Your task to perform on an android device: turn on bluetooth scan Image 0: 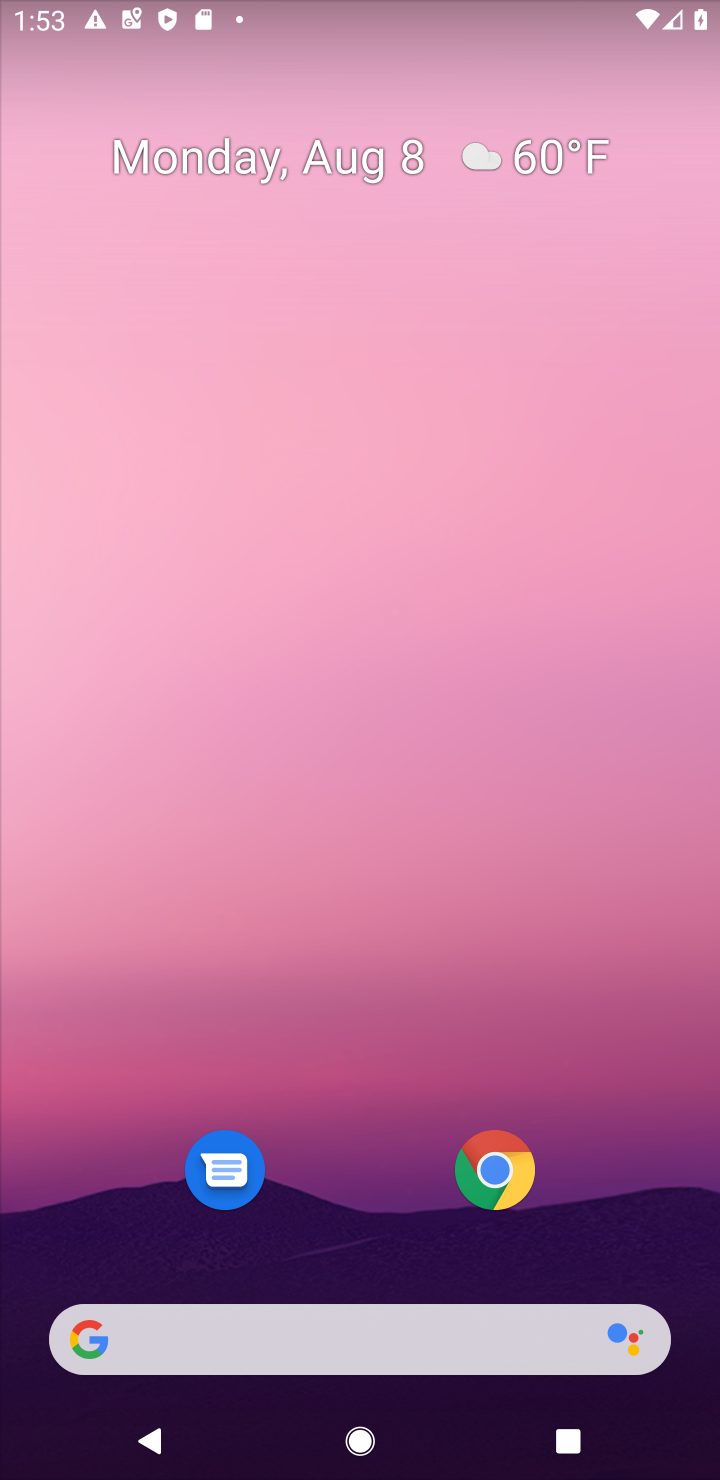
Step 0: drag from (344, 1009) to (356, 441)
Your task to perform on an android device: turn on bluetooth scan Image 1: 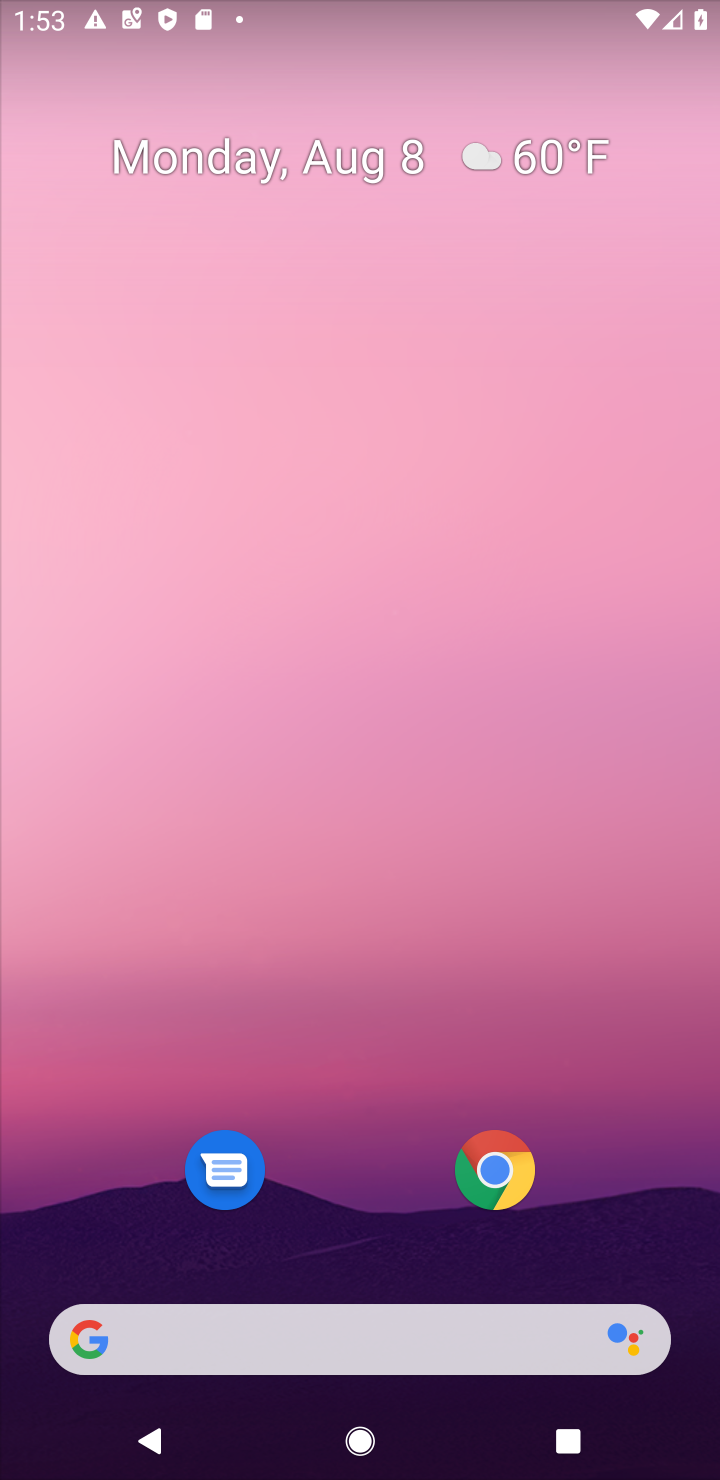
Step 1: drag from (374, 781) to (371, 169)
Your task to perform on an android device: turn on bluetooth scan Image 2: 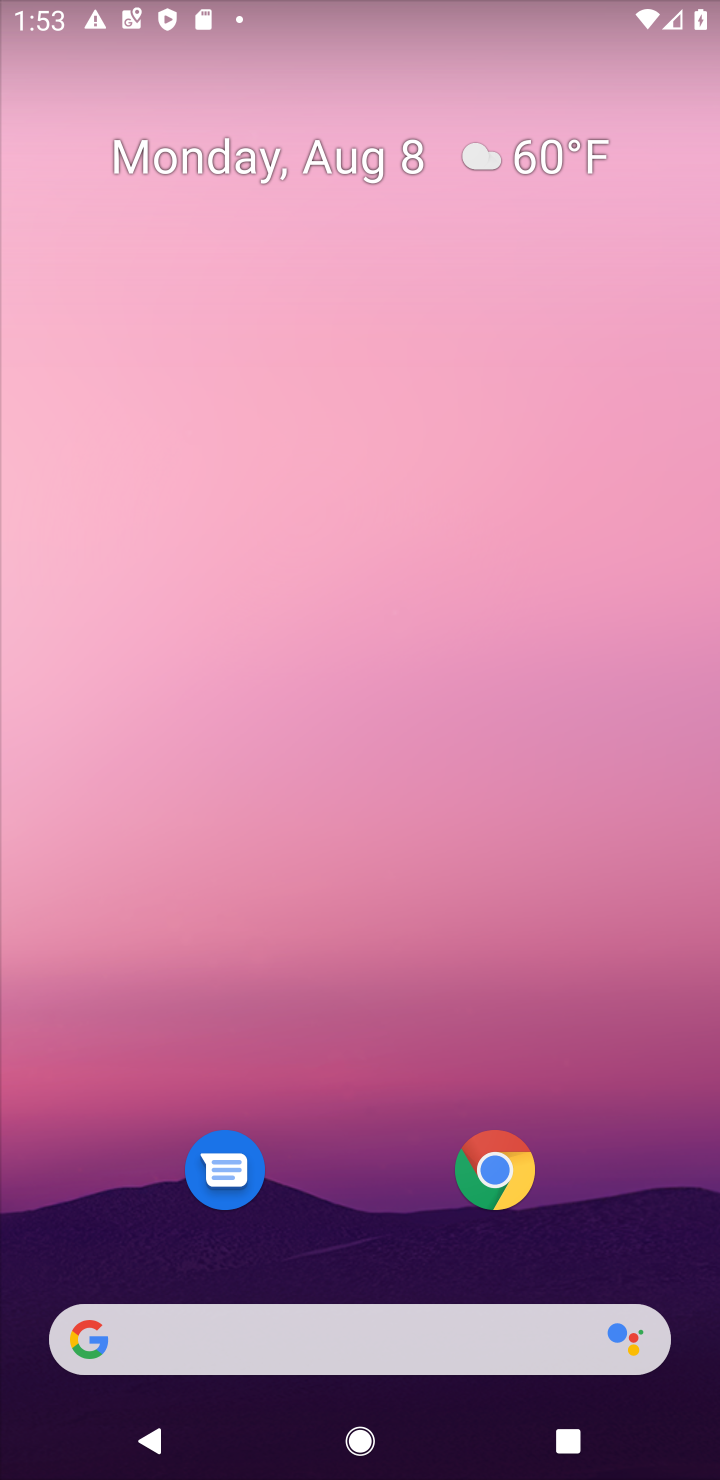
Step 2: drag from (344, 906) to (352, 191)
Your task to perform on an android device: turn on bluetooth scan Image 3: 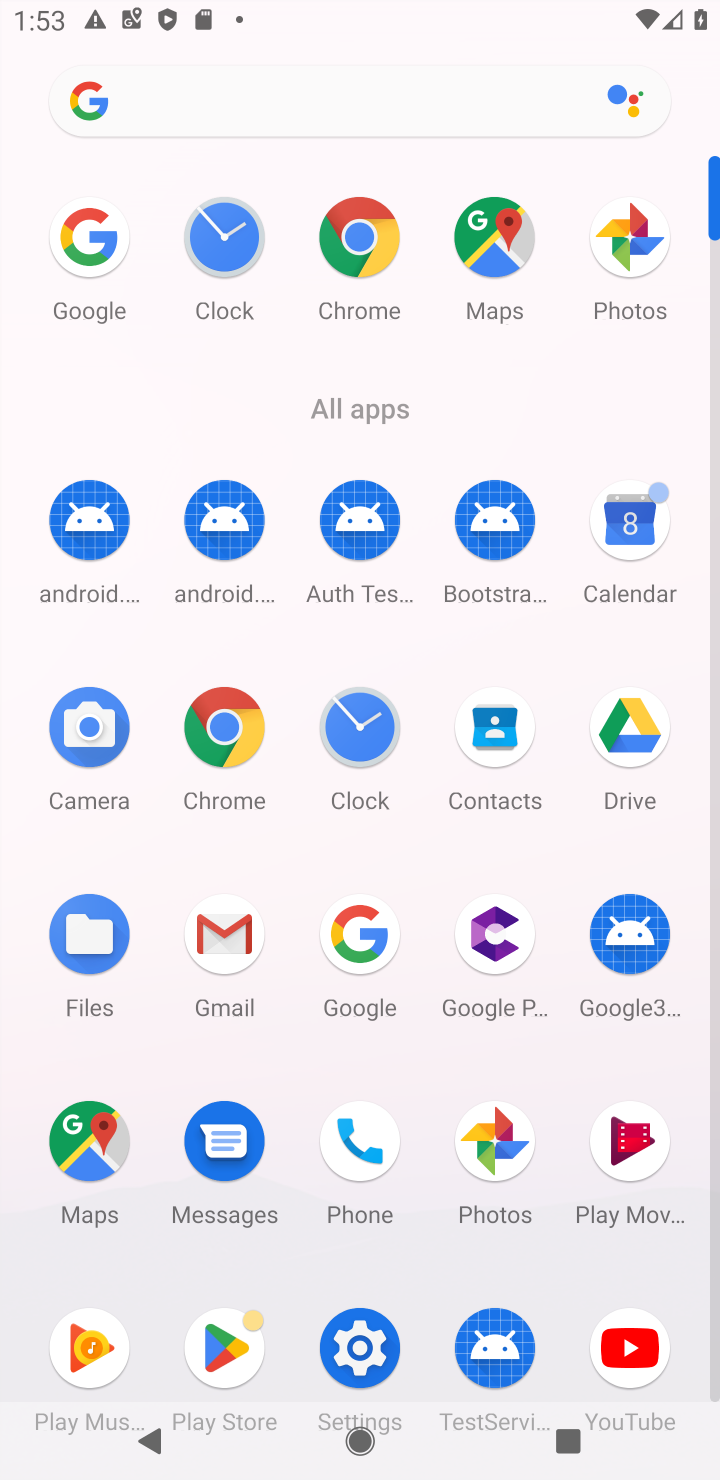
Step 3: click (386, 1319)
Your task to perform on an android device: turn on bluetooth scan Image 4: 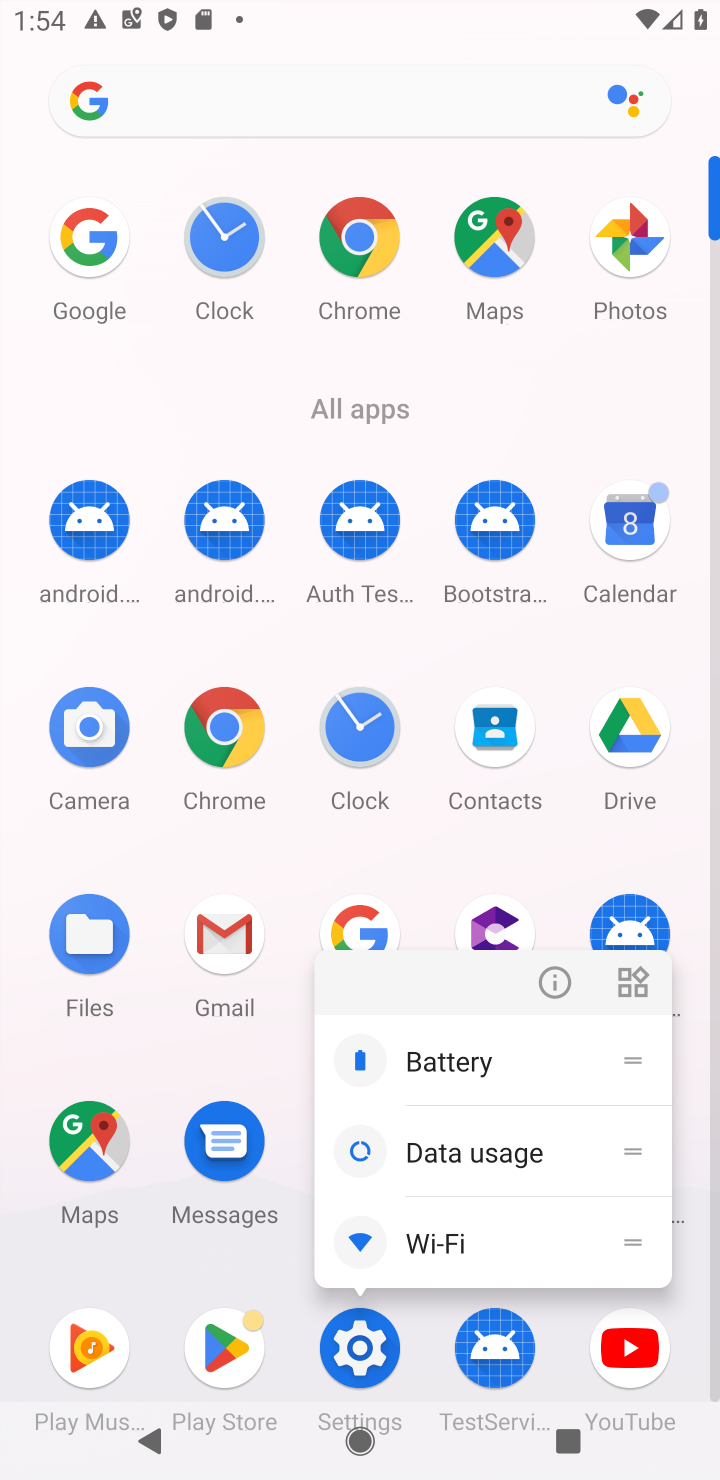
Step 4: click (358, 1359)
Your task to perform on an android device: turn on bluetooth scan Image 5: 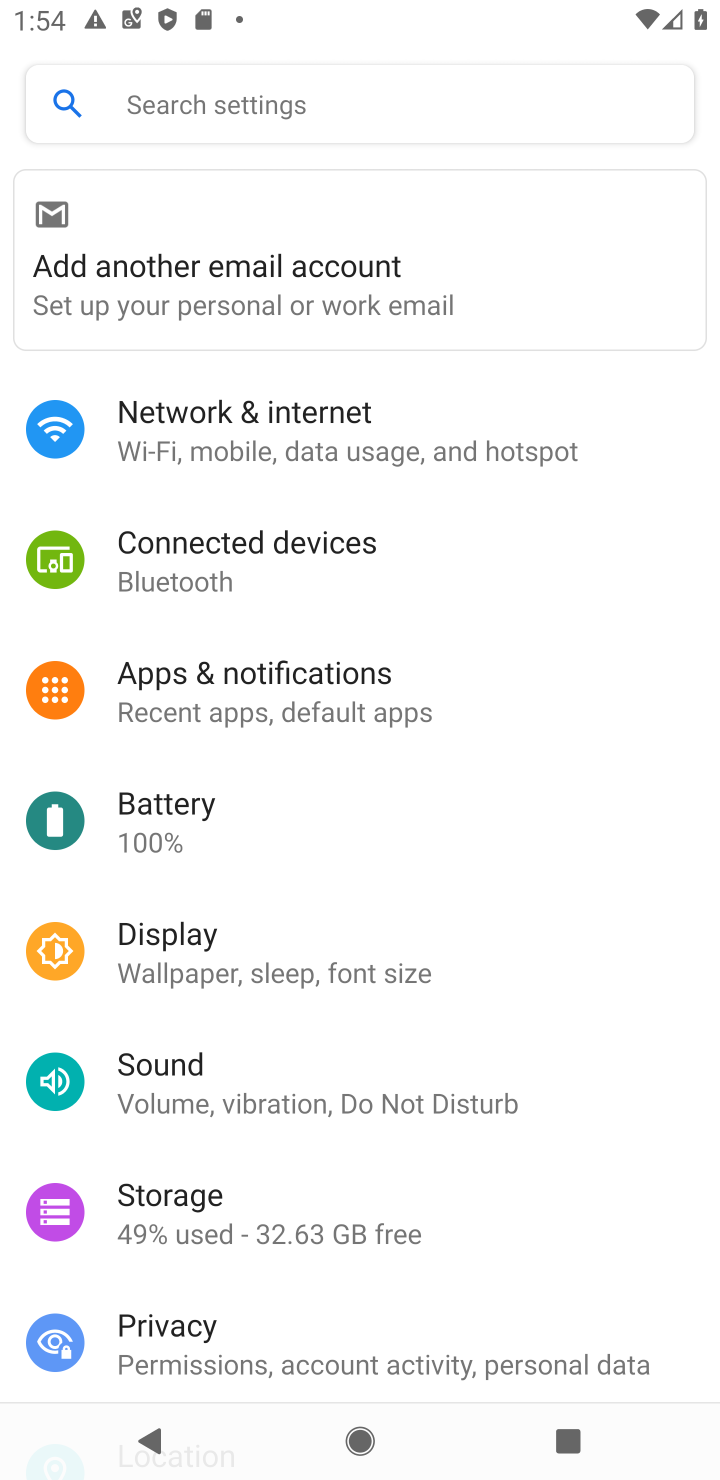
Step 5: click (311, 444)
Your task to perform on an android device: turn on bluetooth scan Image 6: 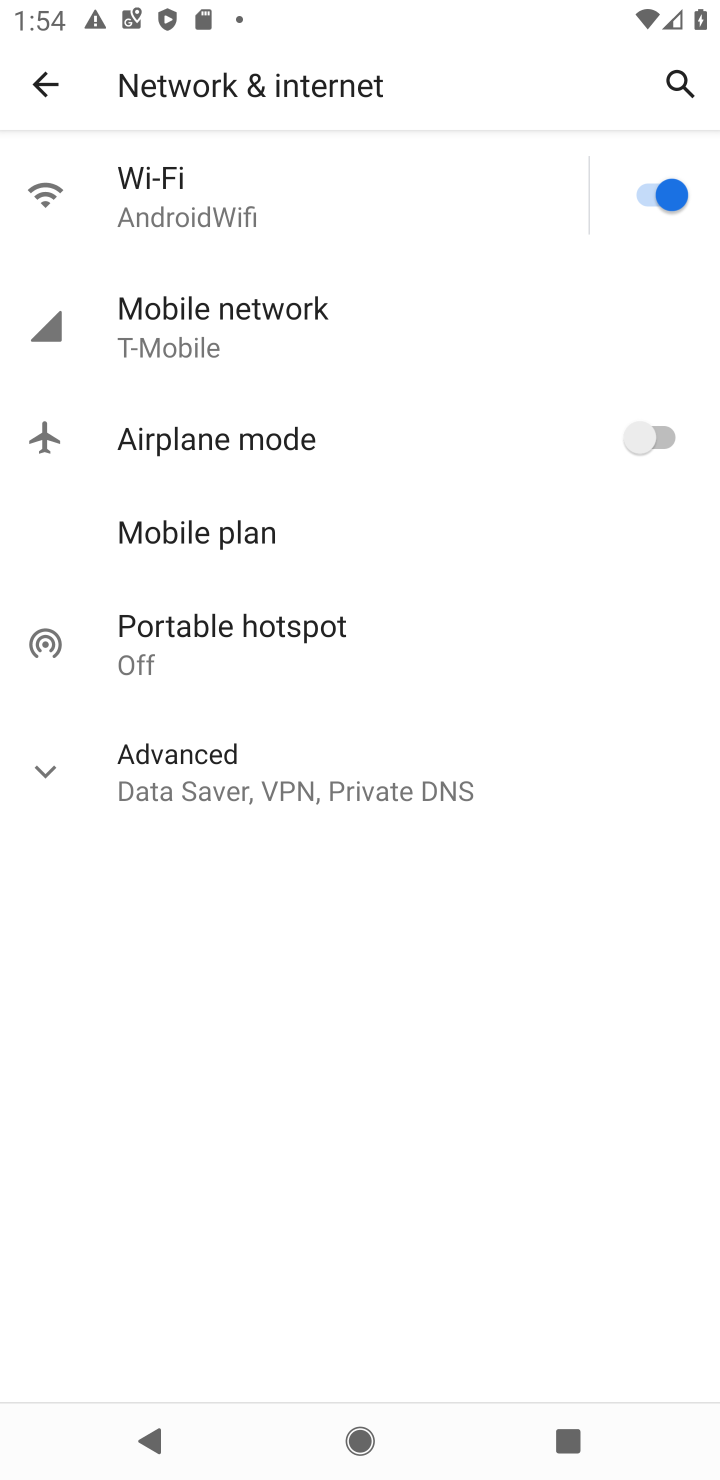
Step 6: click (51, 103)
Your task to perform on an android device: turn on bluetooth scan Image 7: 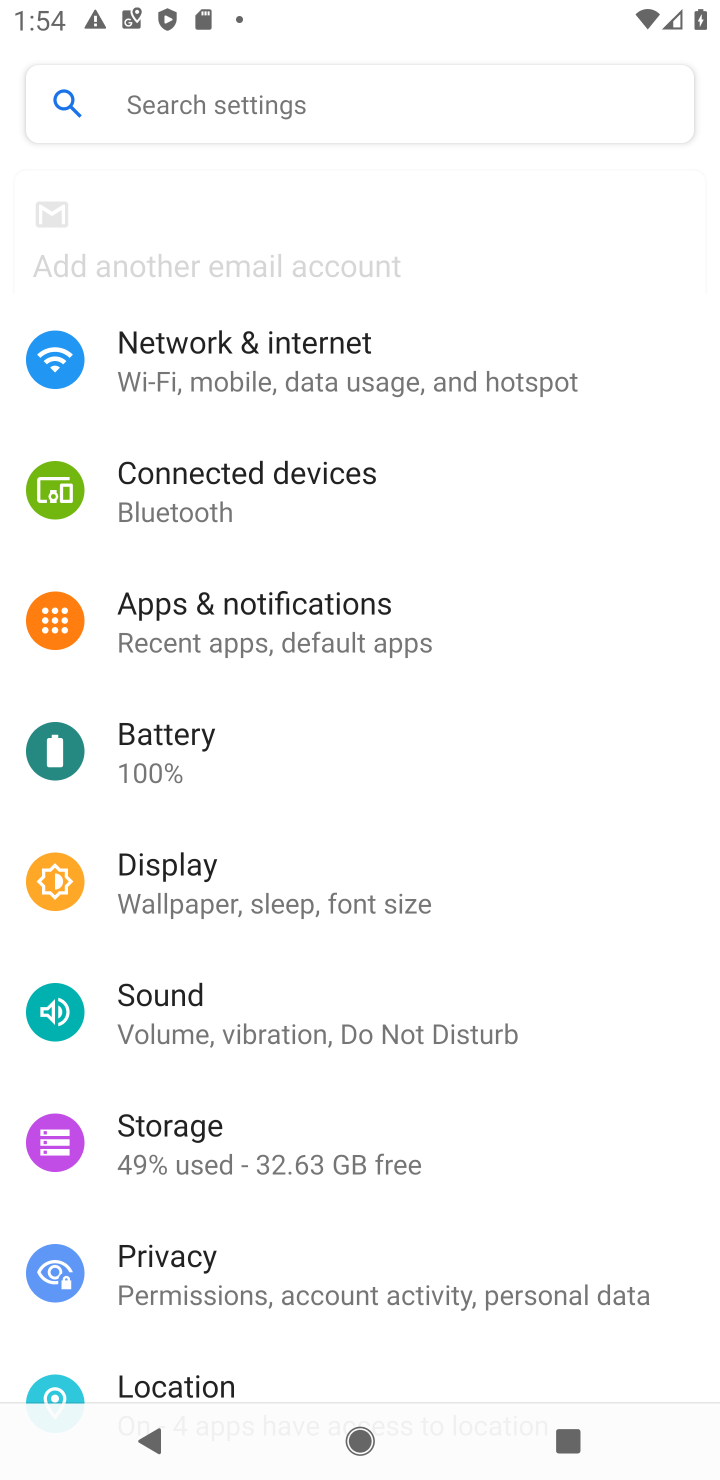
Step 7: drag from (423, 1166) to (473, 354)
Your task to perform on an android device: turn on bluetooth scan Image 8: 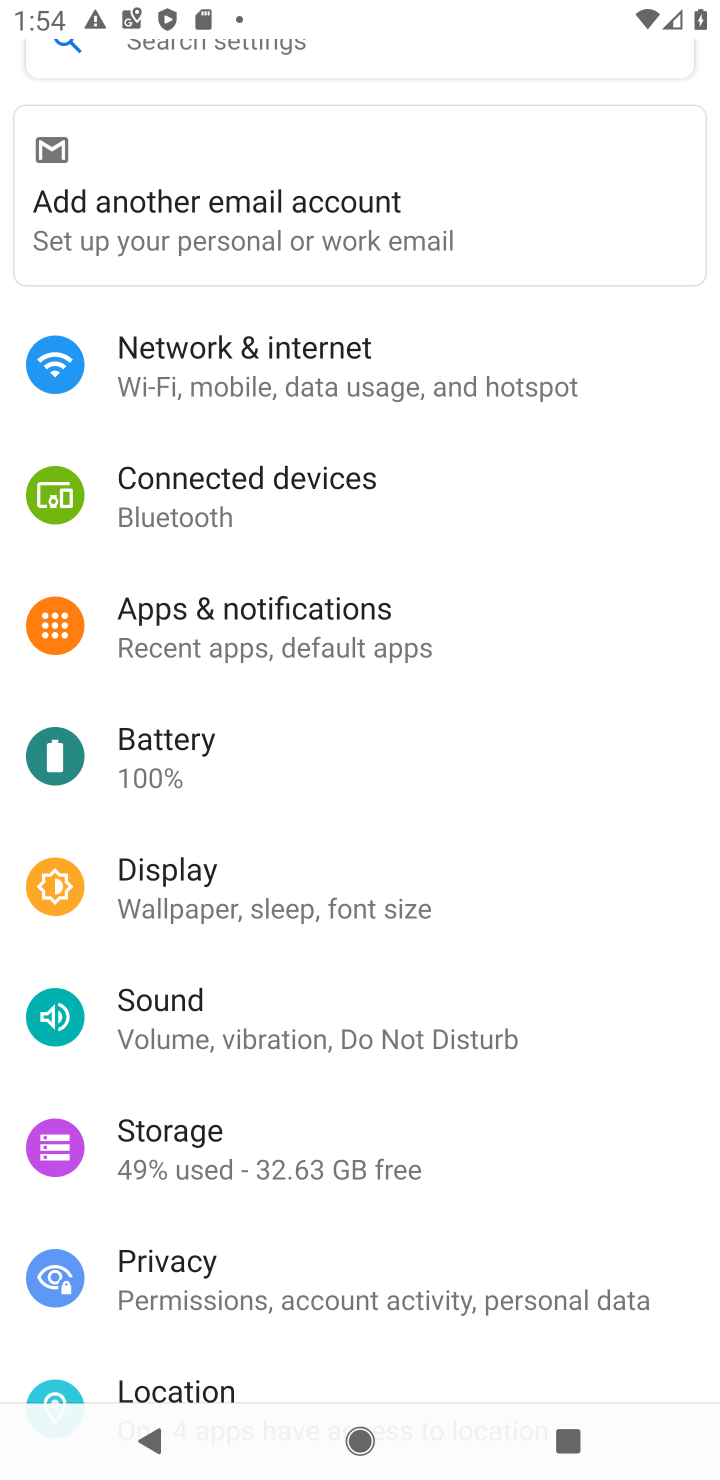
Step 8: drag from (265, 994) to (277, 690)
Your task to perform on an android device: turn on bluetooth scan Image 9: 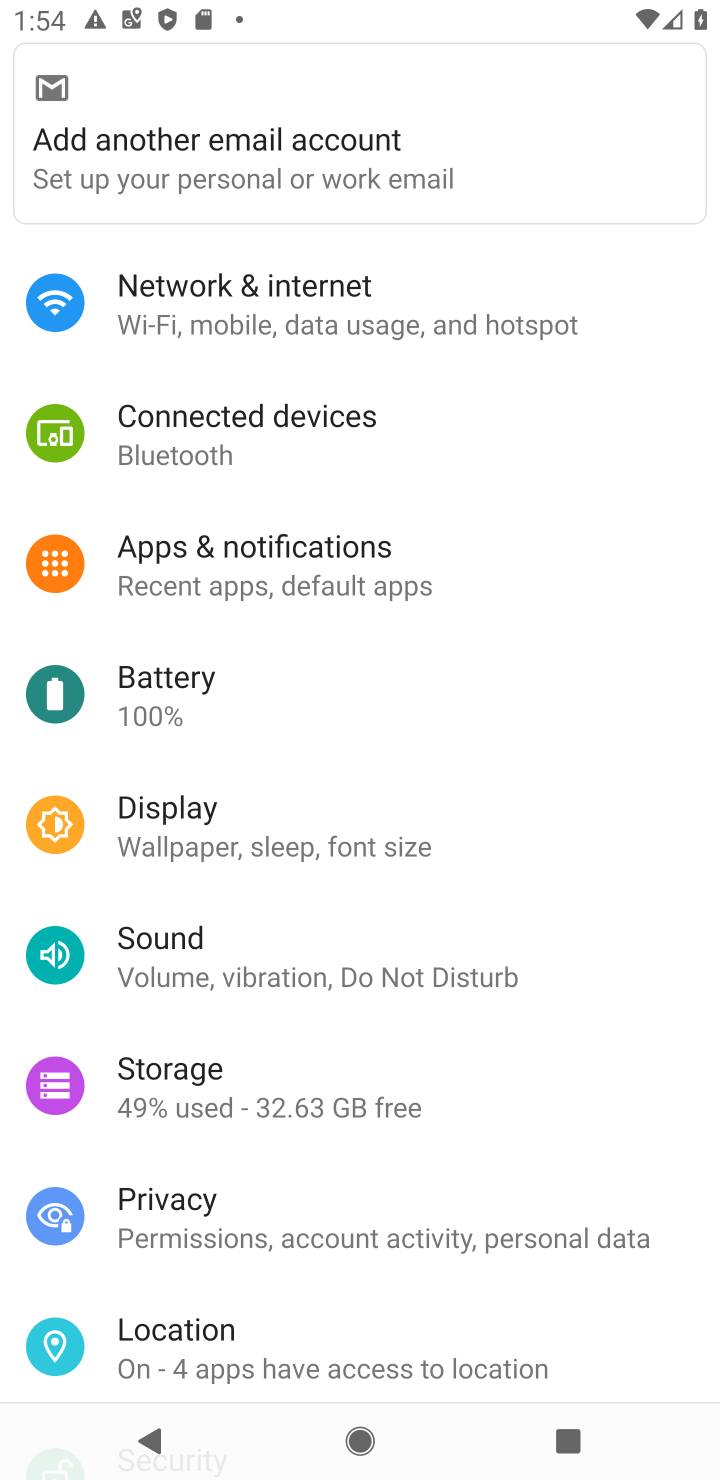
Step 9: click (277, 1350)
Your task to perform on an android device: turn on bluetooth scan Image 10: 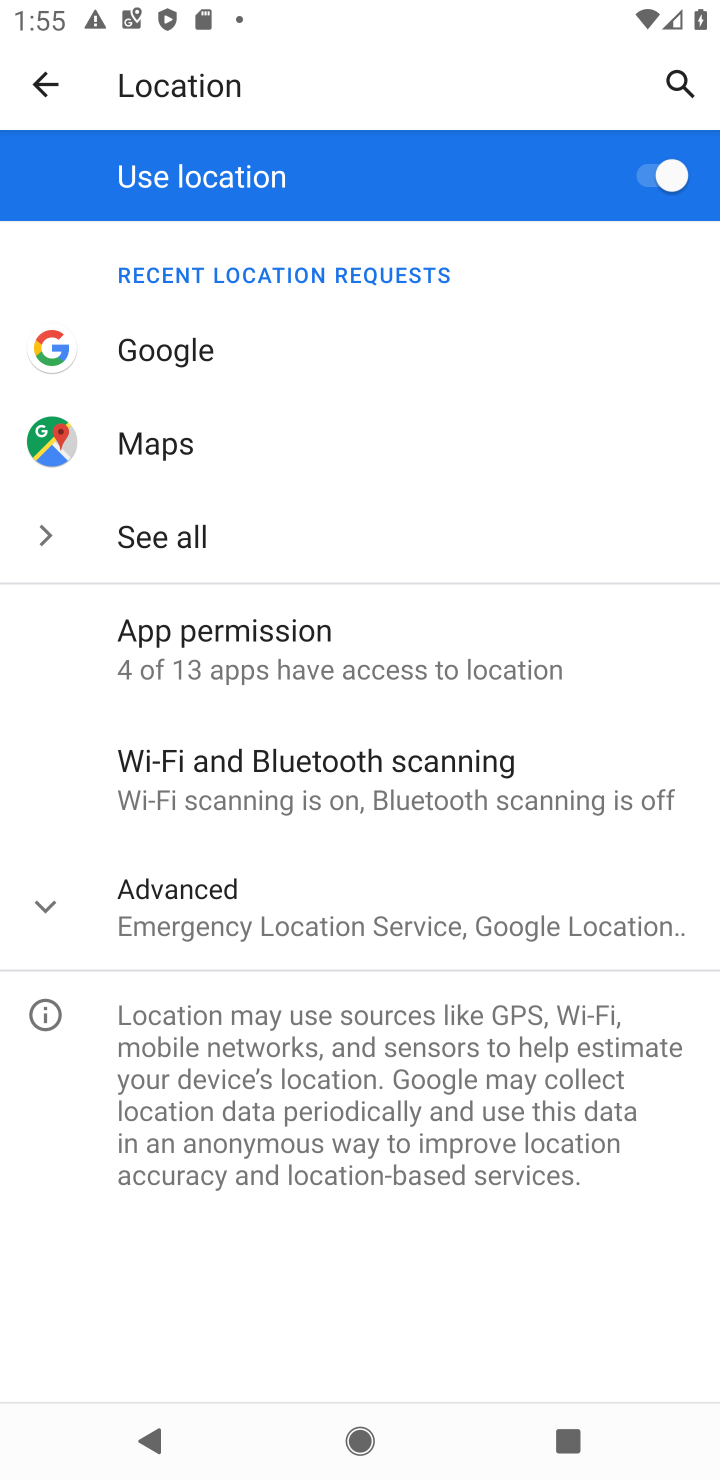
Step 10: click (394, 803)
Your task to perform on an android device: turn on bluetooth scan Image 11: 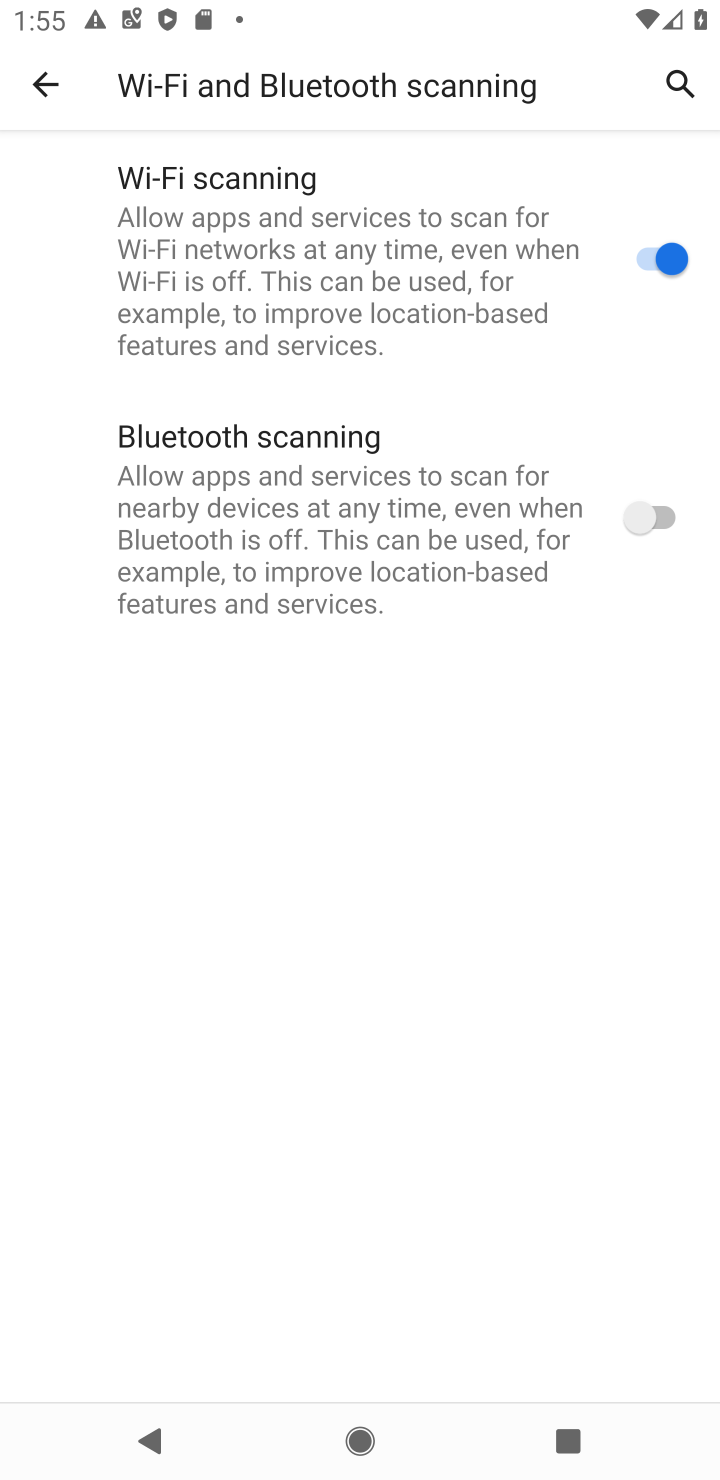
Step 11: click (687, 516)
Your task to perform on an android device: turn on bluetooth scan Image 12: 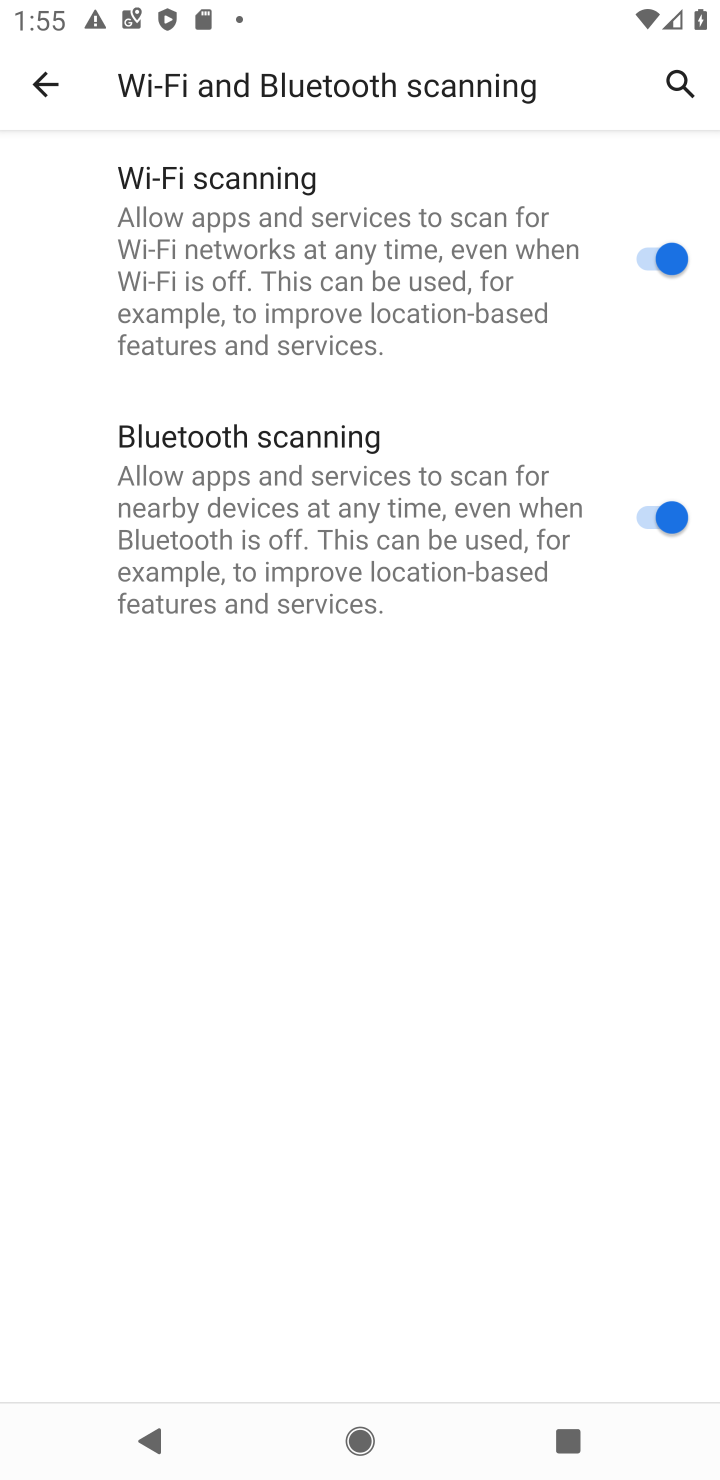
Step 12: task complete